Your task to perform on an android device: toggle airplane mode Image 0: 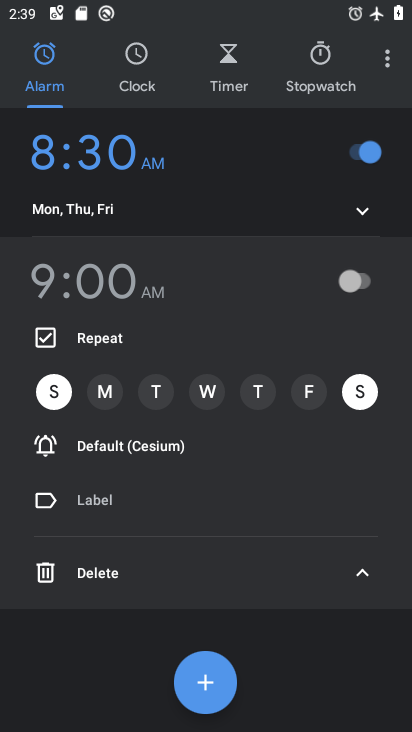
Step 0: press home button
Your task to perform on an android device: toggle airplane mode Image 1: 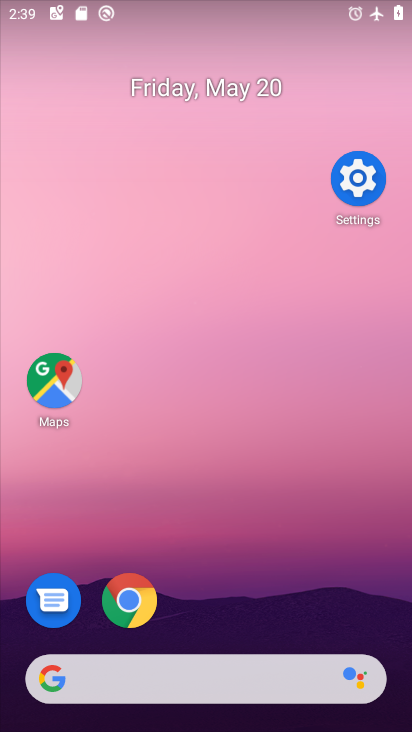
Step 1: click (351, 185)
Your task to perform on an android device: toggle airplane mode Image 2: 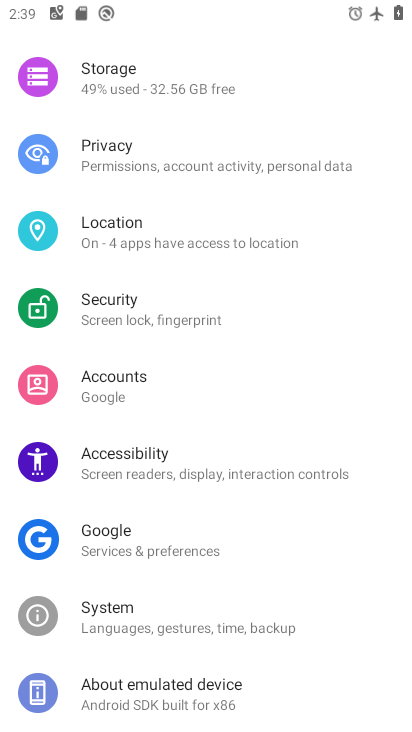
Step 2: drag from (176, 207) to (179, 636)
Your task to perform on an android device: toggle airplane mode Image 3: 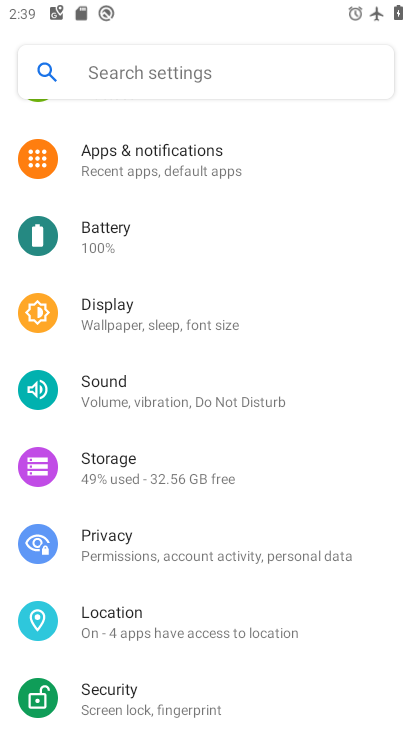
Step 3: drag from (191, 294) to (204, 588)
Your task to perform on an android device: toggle airplane mode Image 4: 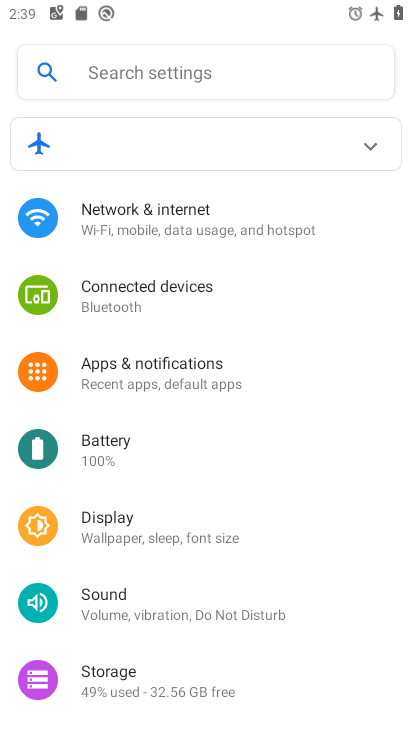
Step 4: click (161, 225)
Your task to perform on an android device: toggle airplane mode Image 5: 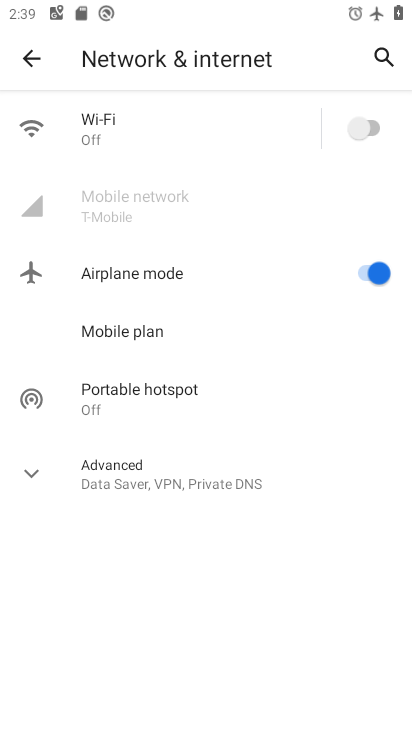
Step 5: click (177, 279)
Your task to perform on an android device: toggle airplane mode Image 6: 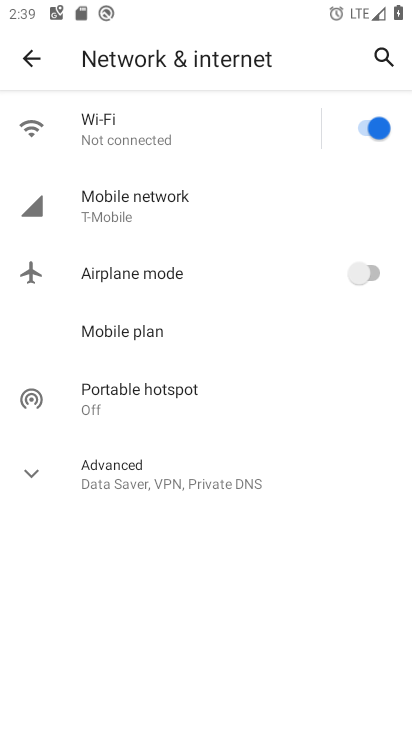
Step 6: task complete